Your task to perform on an android device: delete browsing data in the chrome app Image 0: 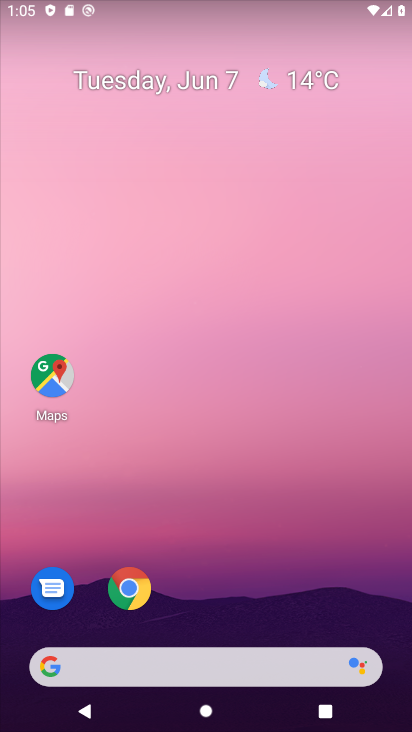
Step 0: click (141, 590)
Your task to perform on an android device: delete browsing data in the chrome app Image 1: 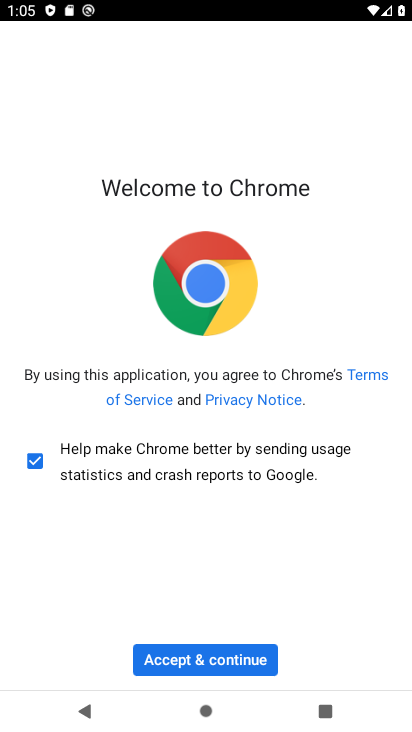
Step 1: click (205, 657)
Your task to perform on an android device: delete browsing data in the chrome app Image 2: 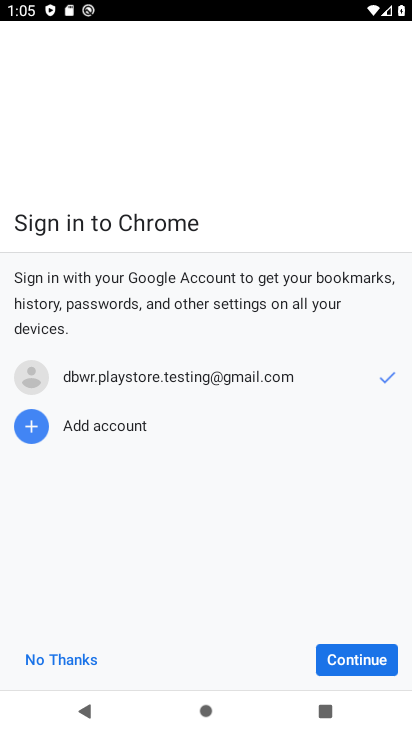
Step 2: click (374, 648)
Your task to perform on an android device: delete browsing data in the chrome app Image 3: 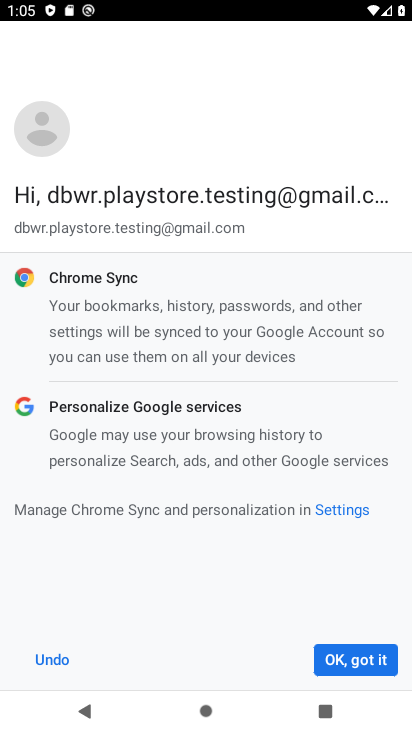
Step 3: click (381, 665)
Your task to perform on an android device: delete browsing data in the chrome app Image 4: 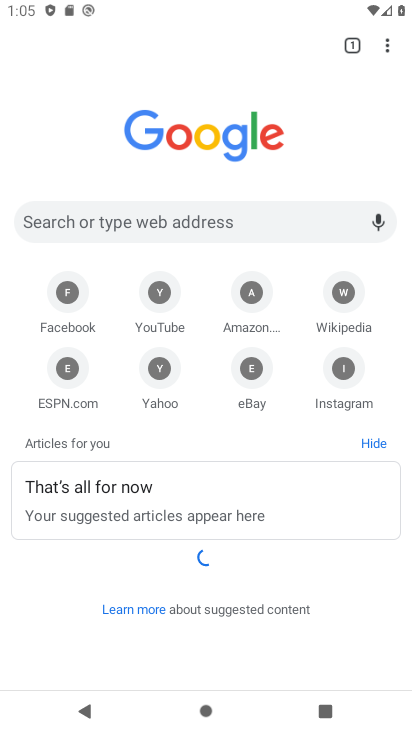
Step 4: click (391, 42)
Your task to perform on an android device: delete browsing data in the chrome app Image 5: 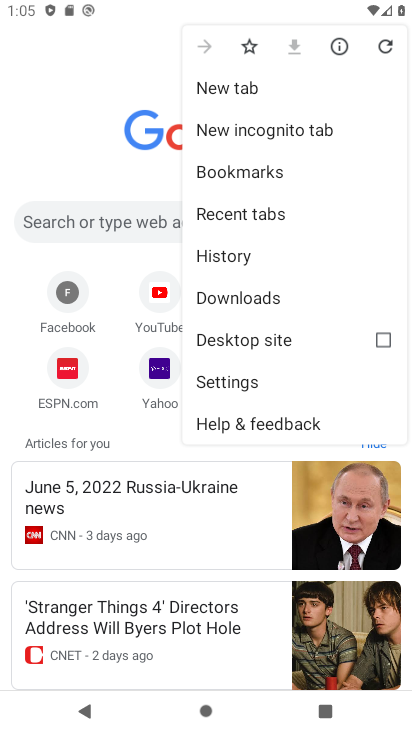
Step 5: click (238, 251)
Your task to perform on an android device: delete browsing data in the chrome app Image 6: 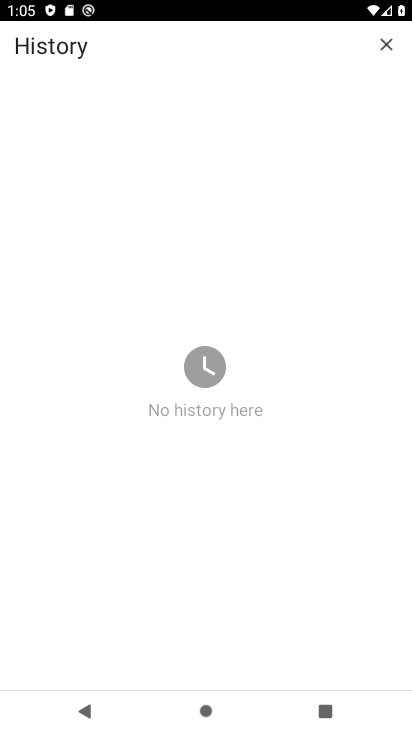
Step 6: task complete